Your task to perform on an android device: install app "Reddit" Image 0: 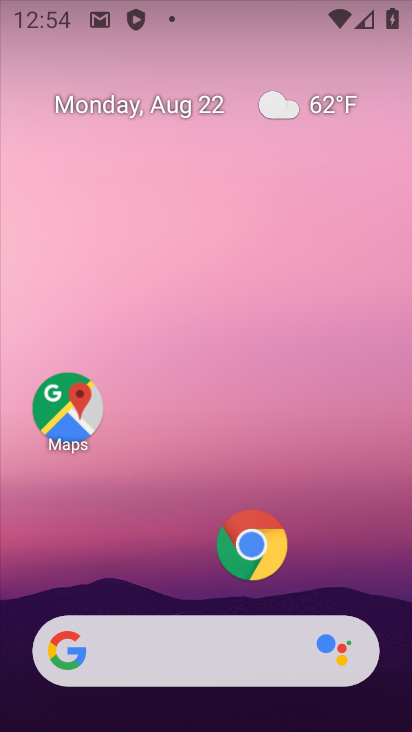
Step 0: drag from (254, 209) to (268, 129)
Your task to perform on an android device: install app "Reddit" Image 1: 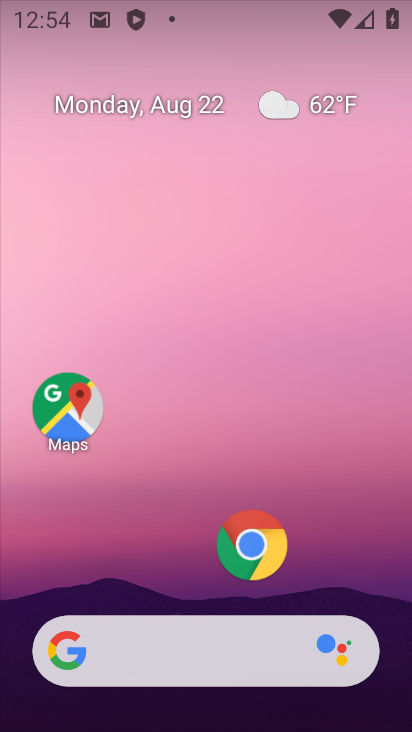
Step 1: drag from (168, 521) to (221, 95)
Your task to perform on an android device: install app "Reddit" Image 2: 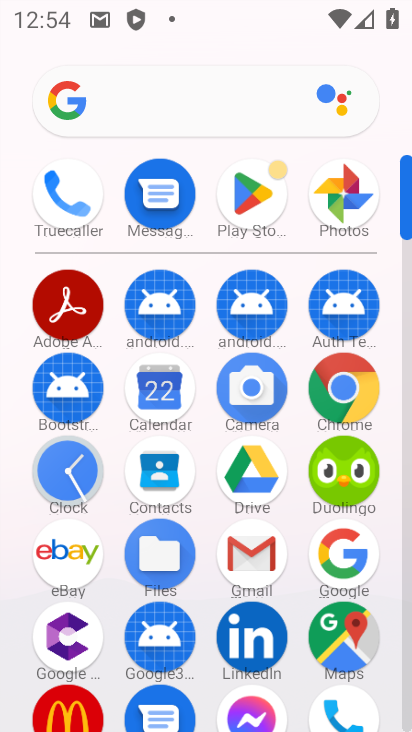
Step 2: click (260, 194)
Your task to perform on an android device: install app "Reddit" Image 3: 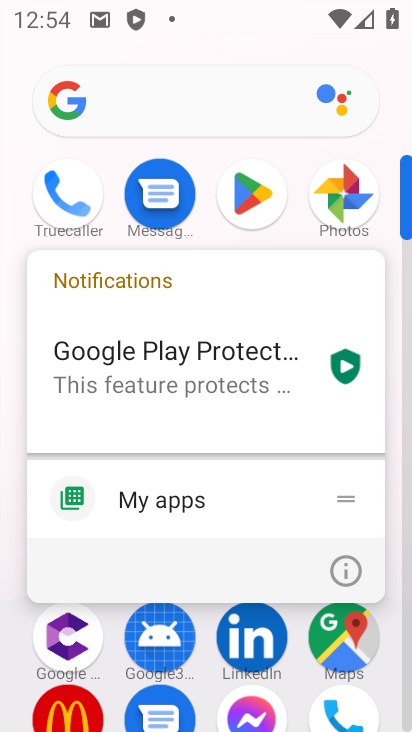
Step 3: click (260, 194)
Your task to perform on an android device: install app "Reddit" Image 4: 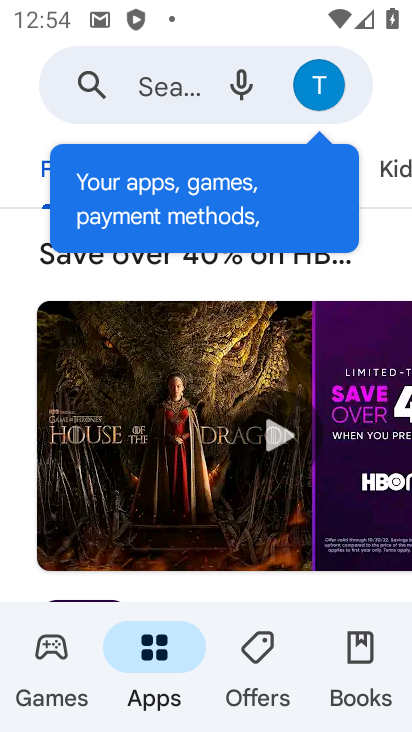
Step 4: click (168, 79)
Your task to perform on an android device: install app "Reddit" Image 5: 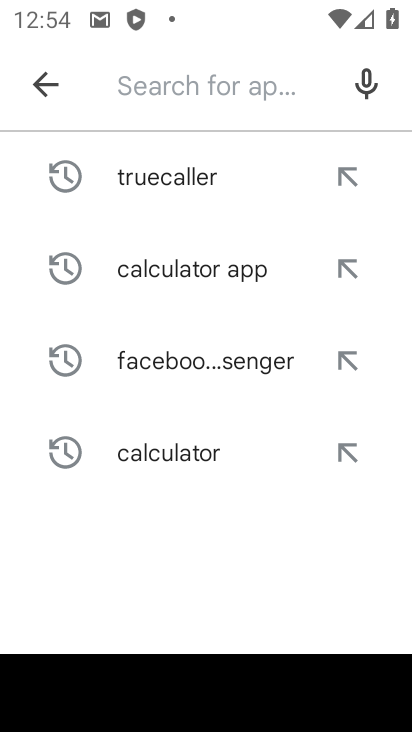
Step 5: type "Reddit"
Your task to perform on an android device: install app "Reddit" Image 6: 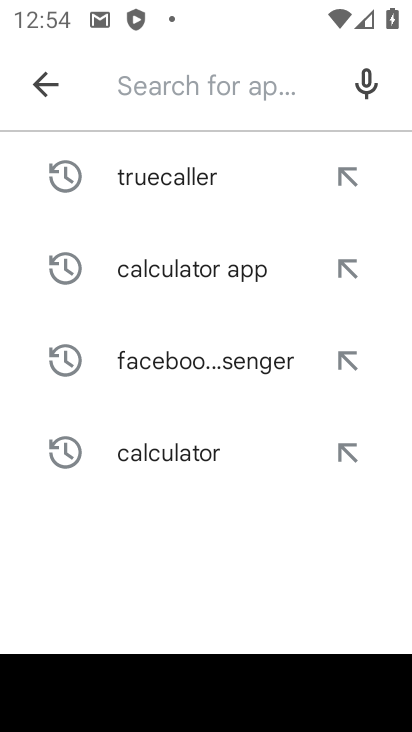
Step 6: click (237, 586)
Your task to perform on an android device: install app "Reddit" Image 7: 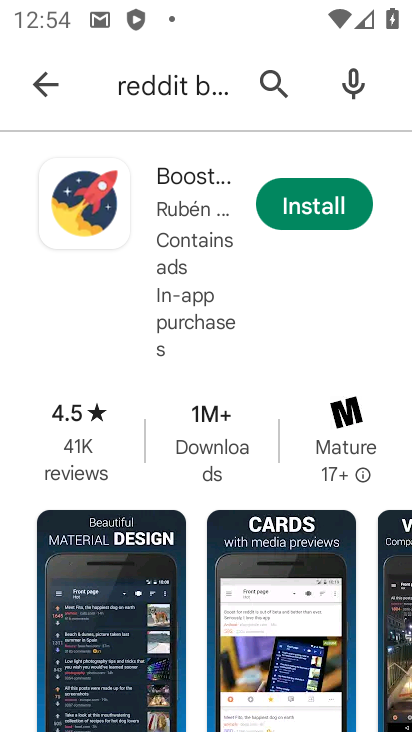
Step 7: drag from (218, 640) to (250, 169)
Your task to perform on an android device: install app "Reddit" Image 8: 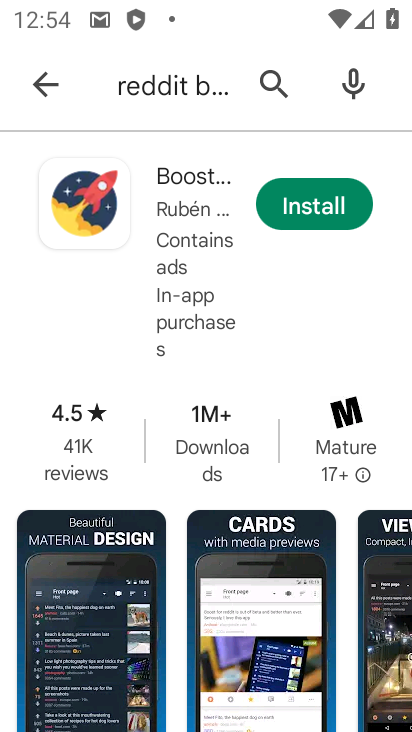
Step 8: press back button
Your task to perform on an android device: install app "Reddit" Image 9: 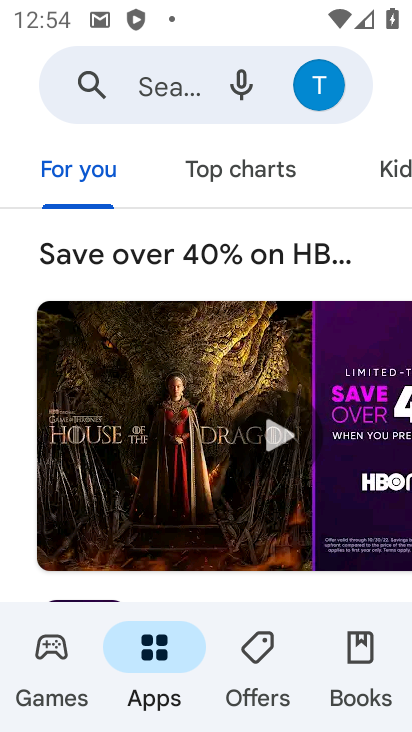
Step 9: click (187, 90)
Your task to perform on an android device: install app "Reddit" Image 10: 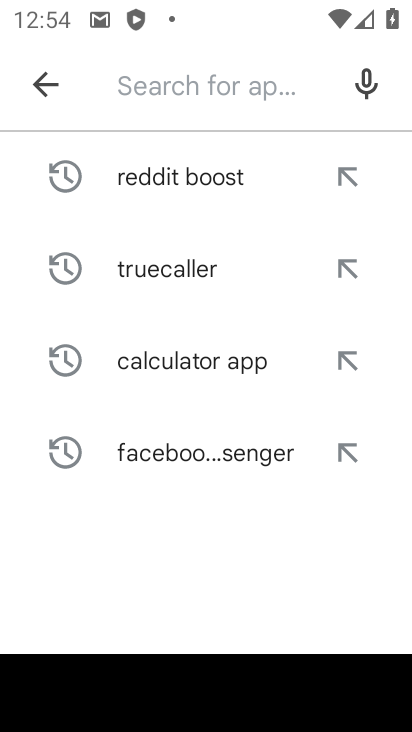
Step 10: type "Reddit"
Your task to perform on an android device: install app "Reddit" Image 11: 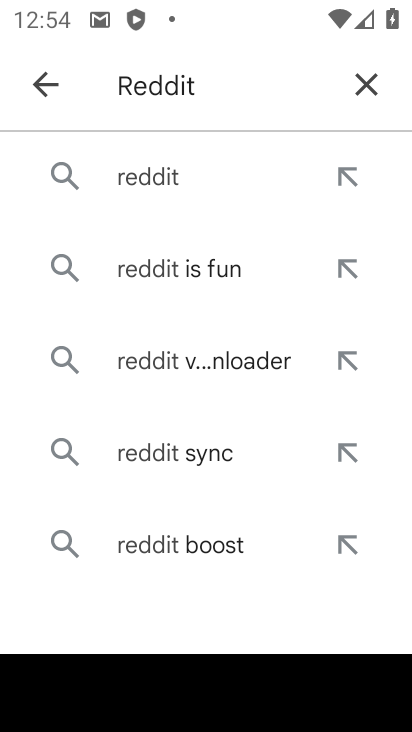
Step 11: click (167, 174)
Your task to perform on an android device: install app "Reddit" Image 12: 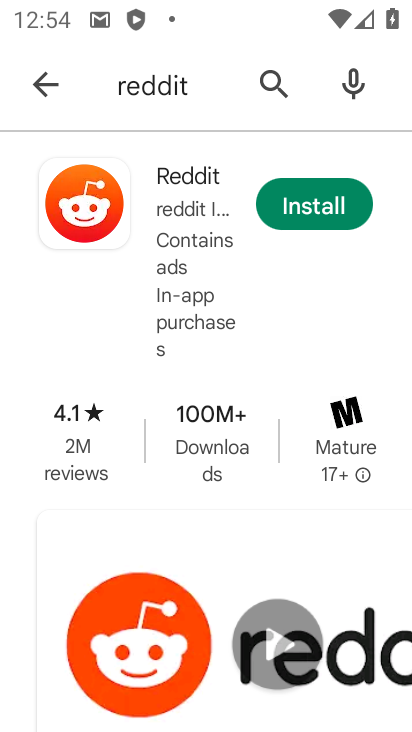
Step 12: click (331, 213)
Your task to perform on an android device: install app "Reddit" Image 13: 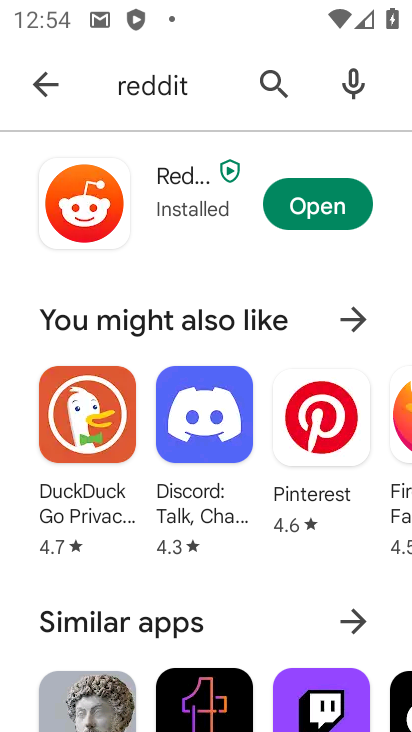
Step 13: task complete